Your task to perform on an android device: open device folders in google photos Image 0: 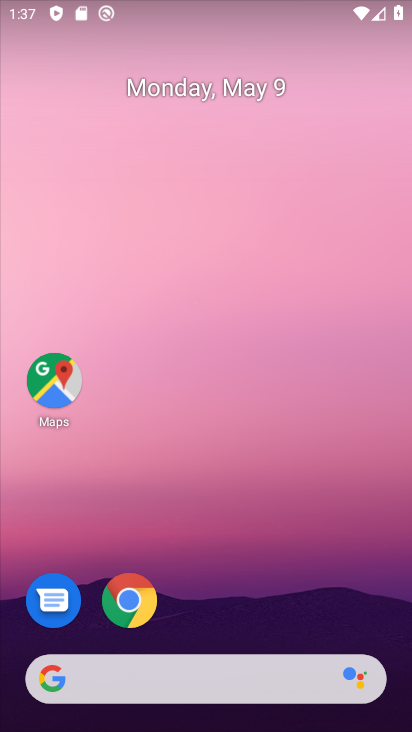
Step 0: drag from (243, 597) to (231, 30)
Your task to perform on an android device: open device folders in google photos Image 1: 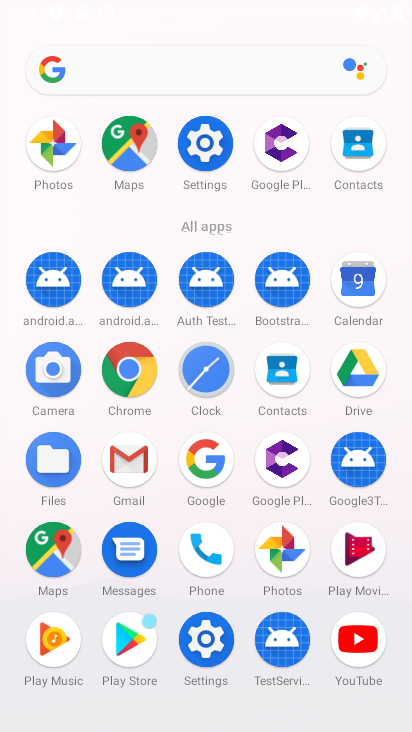
Step 1: drag from (3, 580) to (13, 181)
Your task to perform on an android device: open device folders in google photos Image 2: 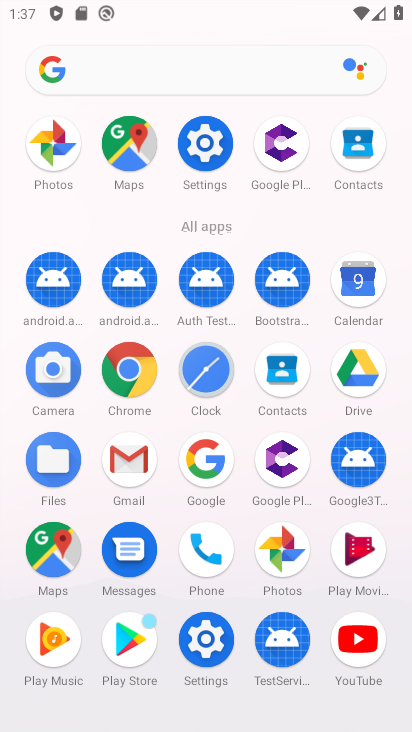
Step 2: click (281, 545)
Your task to perform on an android device: open device folders in google photos Image 3: 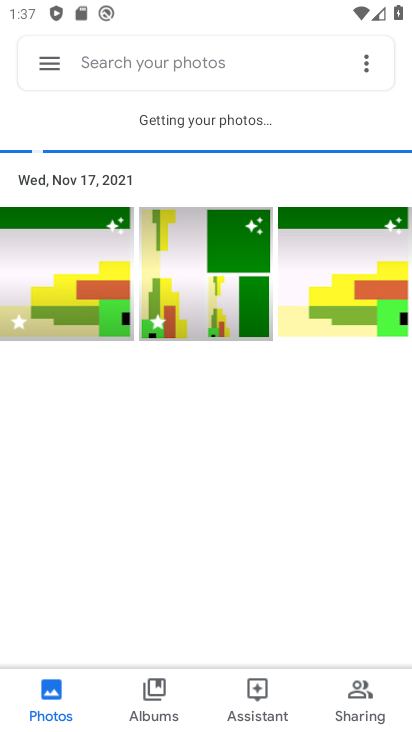
Step 3: click (53, 59)
Your task to perform on an android device: open device folders in google photos Image 4: 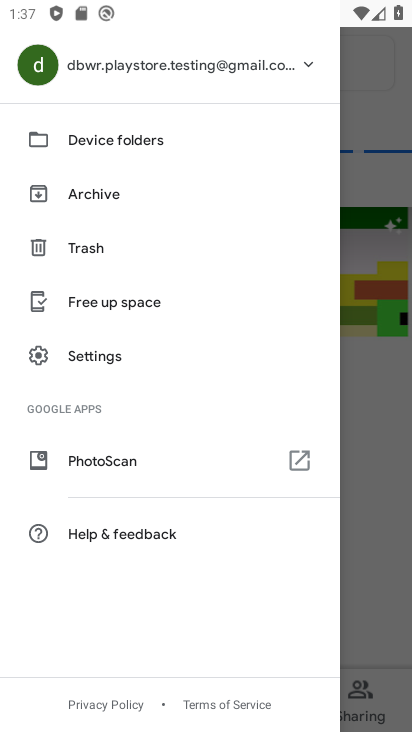
Step 4: click (101, 133)
Your task to perform on an android device: open device folders in google photos Image 5: 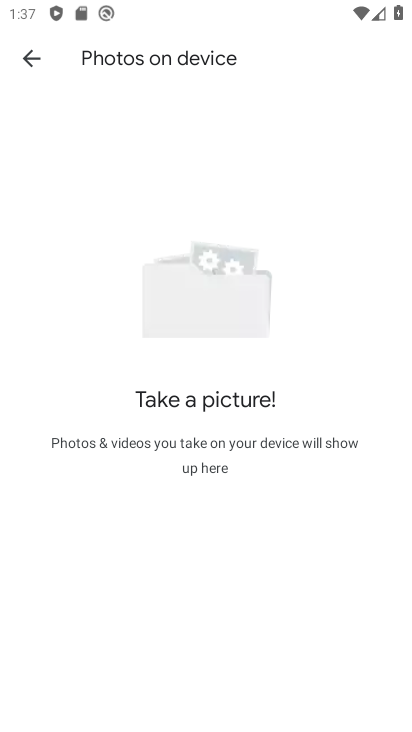
Step 5: task complete